Your task to perform on an android device: What's the news in Chile? Image 0: 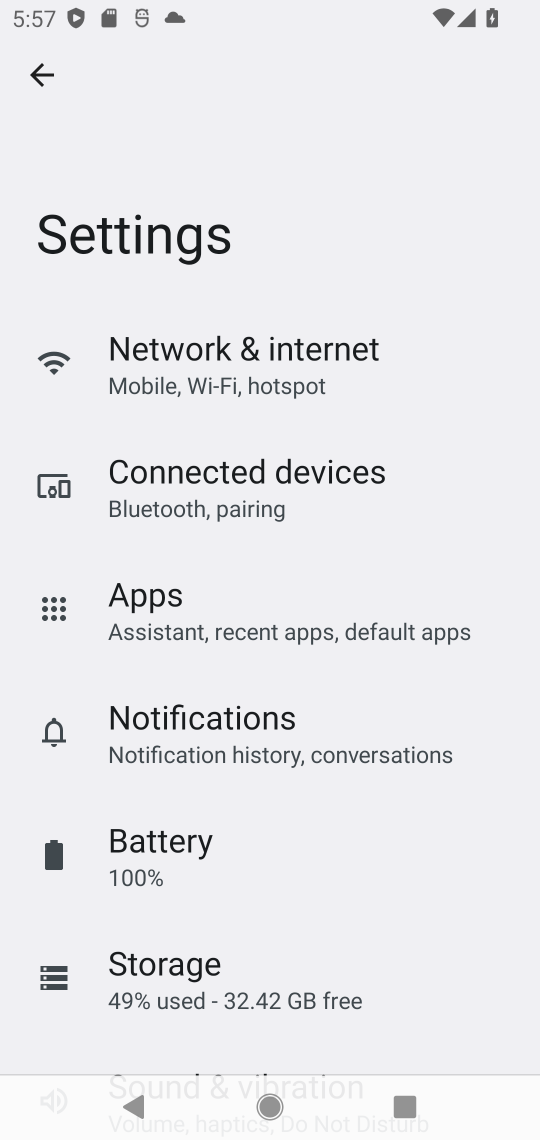
Step 0: press home button
Your task to perform on an android device: What's the news in Chile? Image 1: 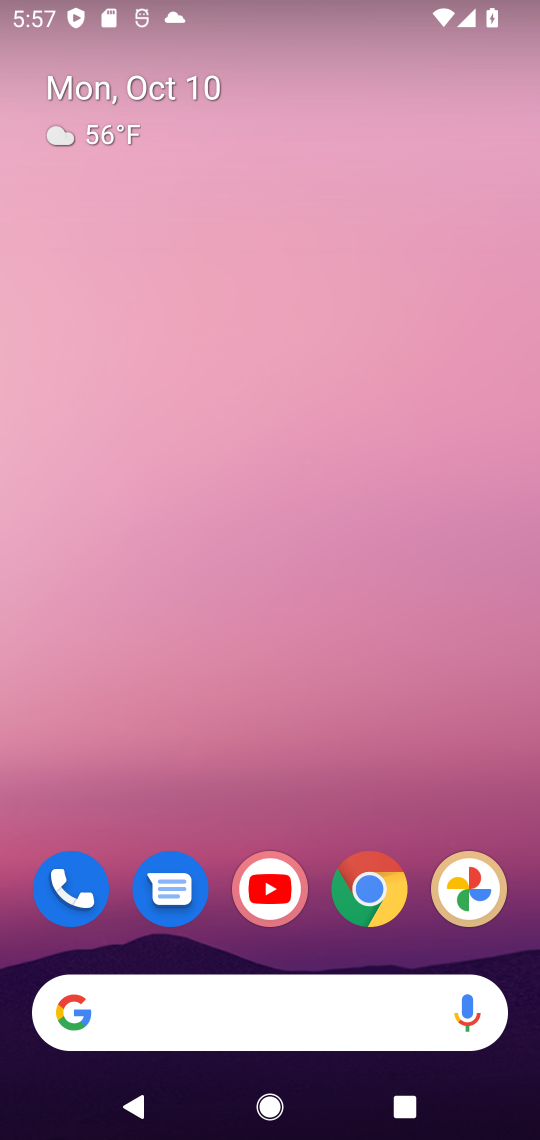
Step 1: click (389, 885)
Your task to perform on an android device: What's the news in Chile? Image 2: 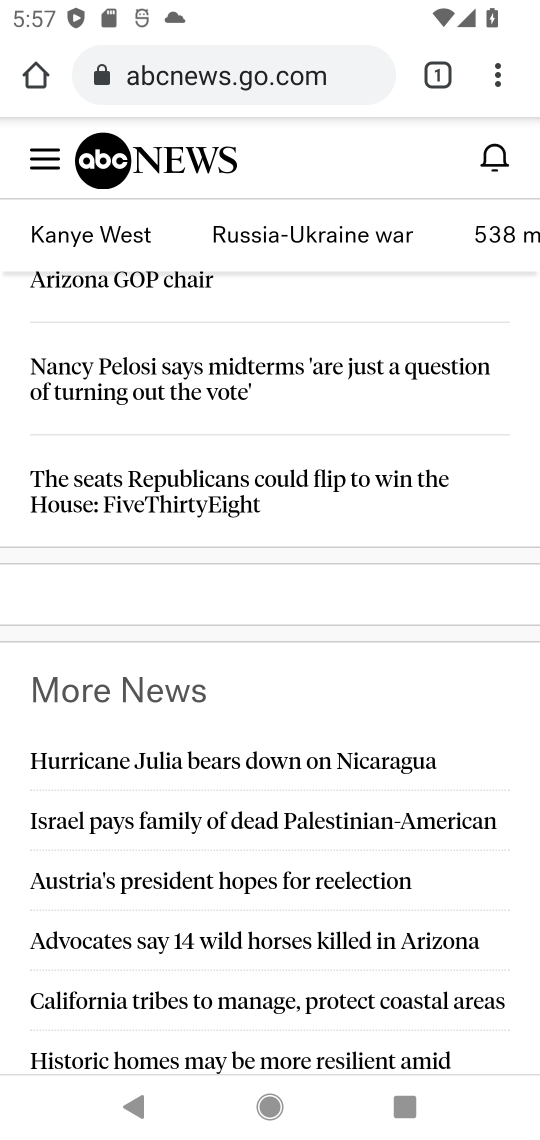
Step 2: click (210, 65)
Your task to perform on an android device: What's the news in Chile? Image 3: 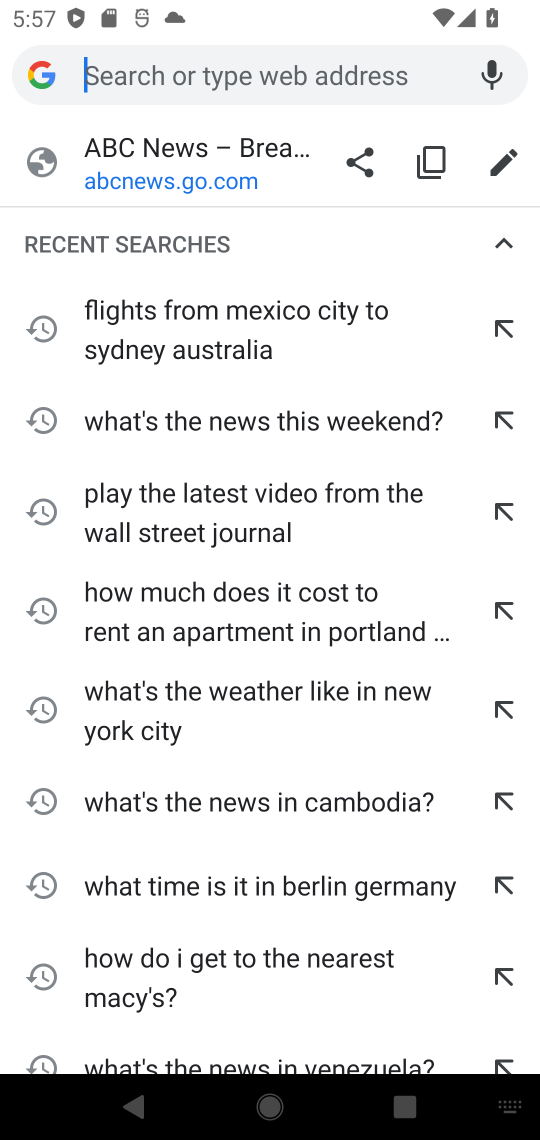
Step 3: type "What's the news in Chile?"
Your task to perform on an android device: What's the news in Chile? Image 4: 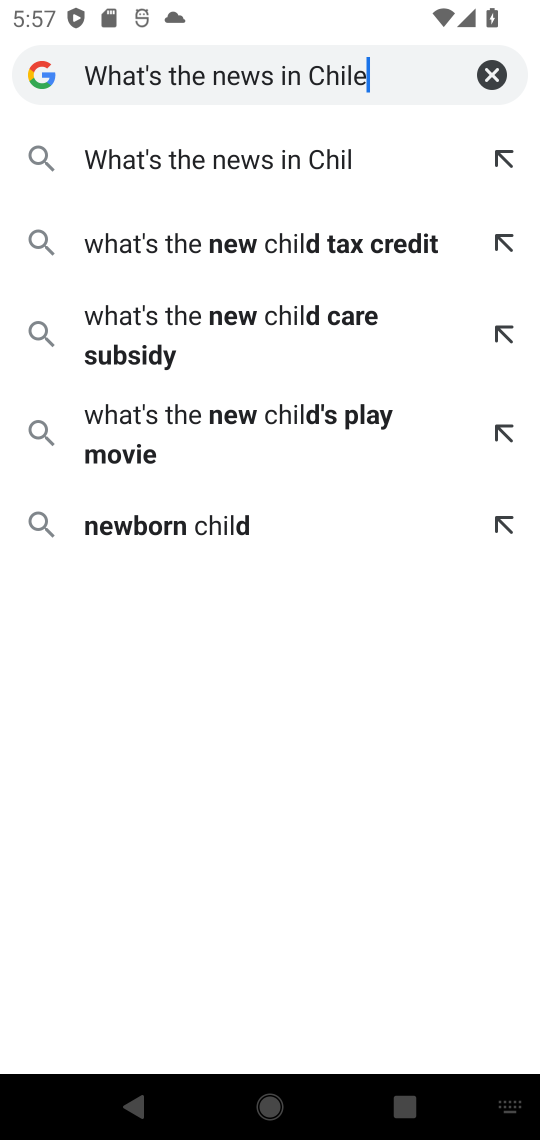
Step 4: type ""
Your task to perform on an android device: What's the news in Chile? Image 5: 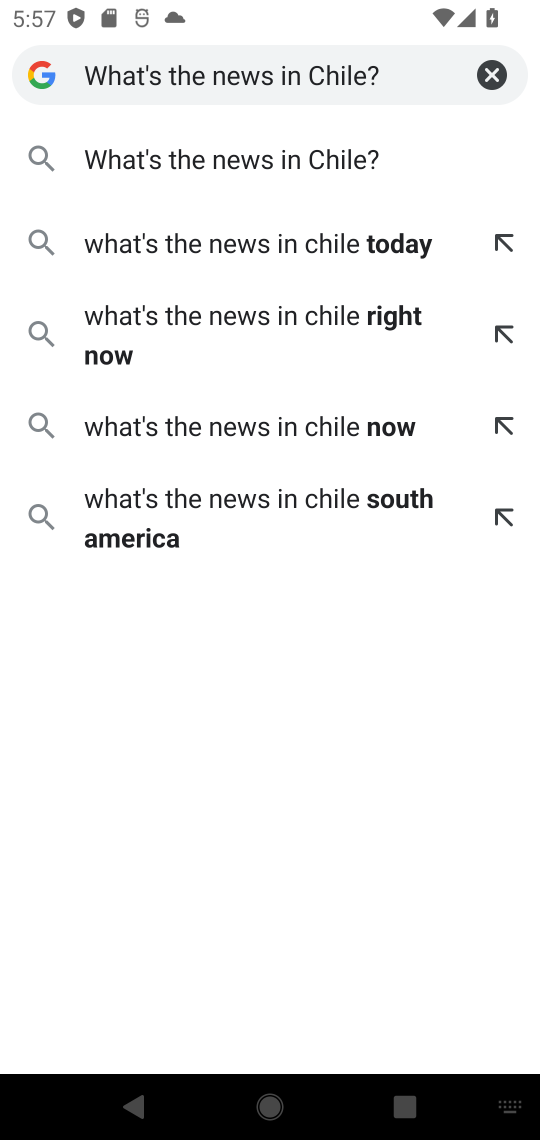
Step 5: press enter
Your task to perform on an android device: What's the news in Chile? Image 6: 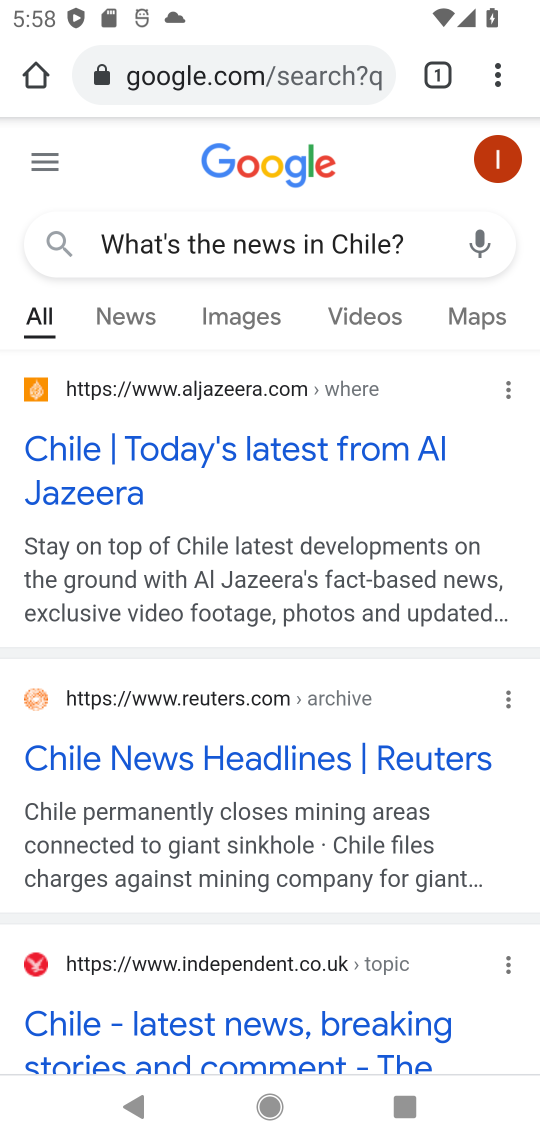
Step 6: click (260, 474)
Your task to perform on an android device: What's the news in Chile? Image 7: 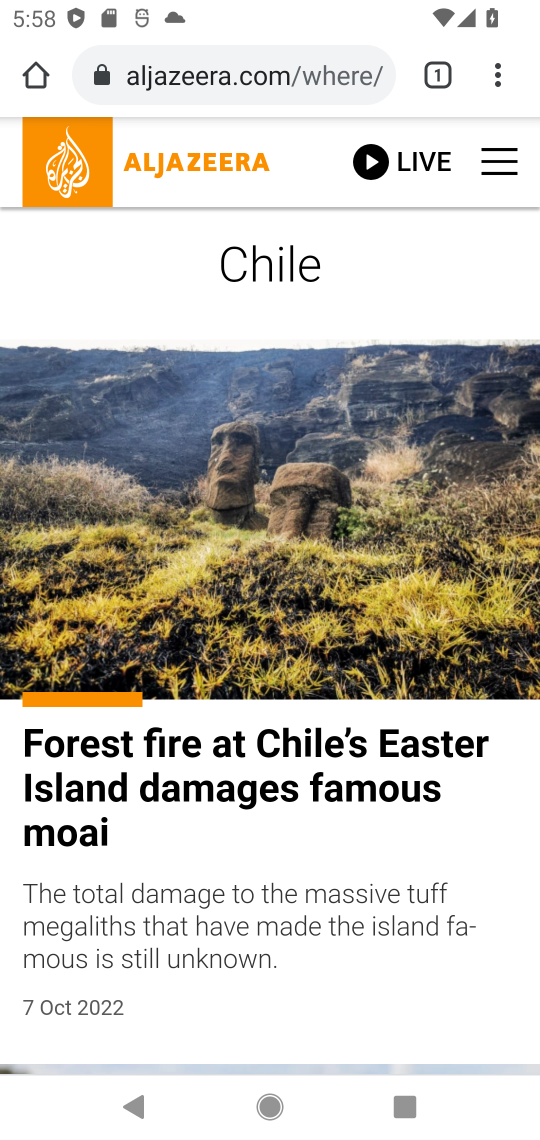
Step 7: drag from (146, 840) to (284, 422)
Your task to perform on an android device: What's the news in Chile? Image 8: 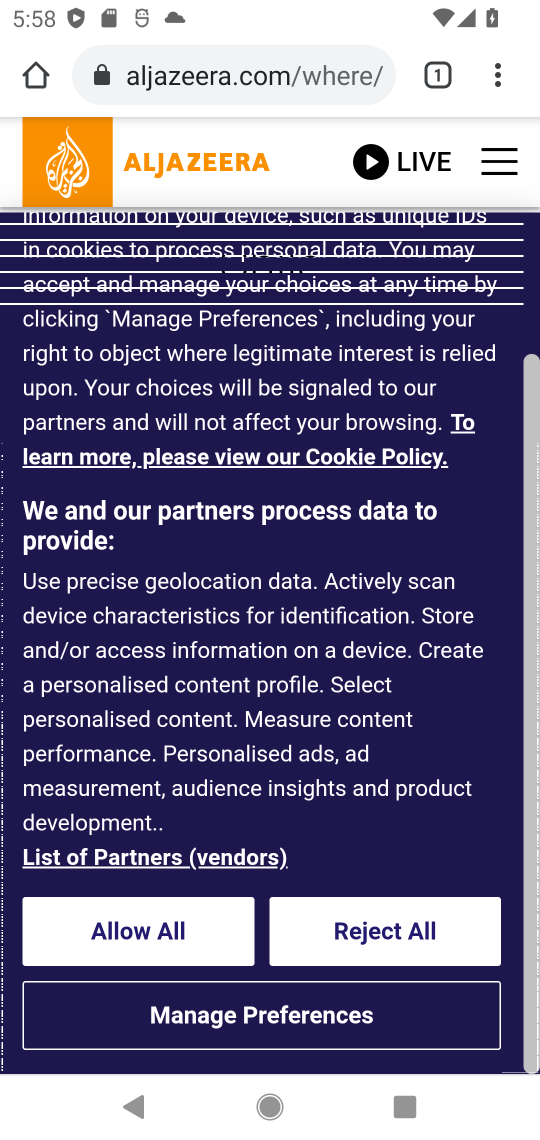
Step 8: drag from (356, 721) to (442, 274)
Your task to perform on an android device: What's the news in Chile? Image 9: 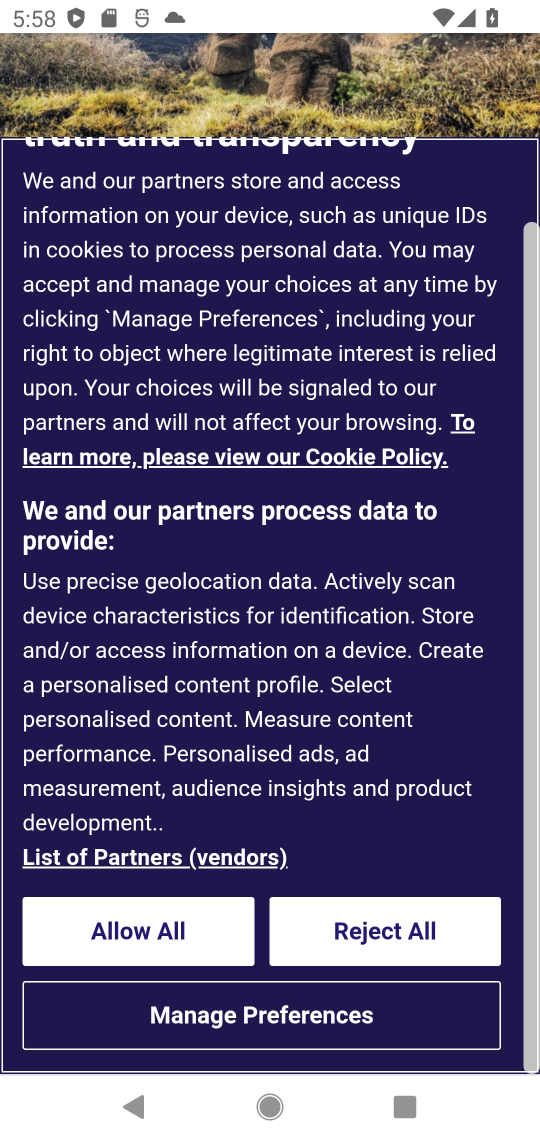
Step 9: click (345, 932)
Your task to perform on an android device: What's the news in Chile? Image 10: 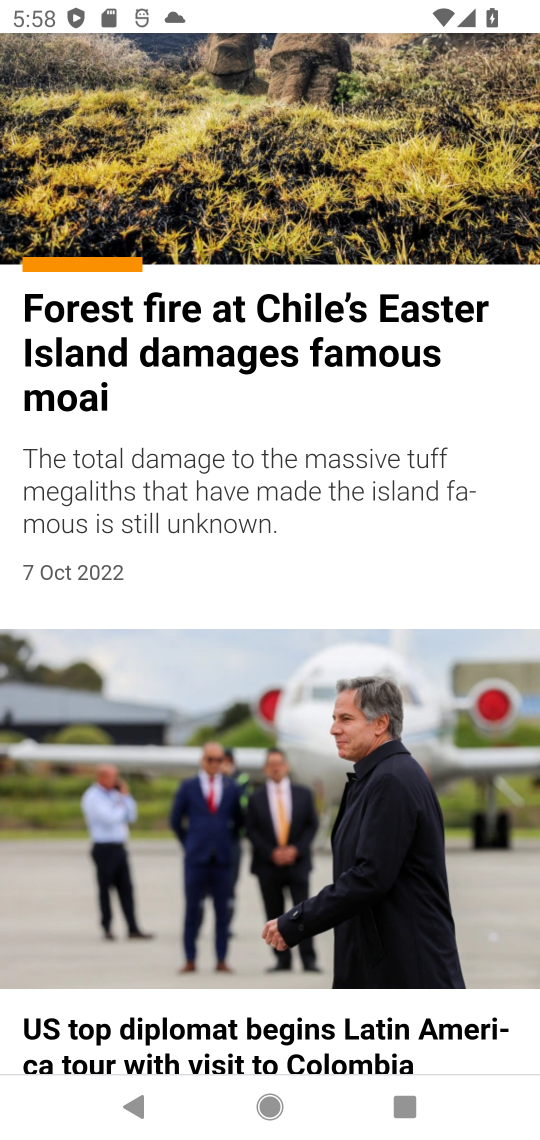
Step 10: drag from (345, 932) to (480, 62)
Your task to perform on an android device: What's the news in Chile? Image 11: 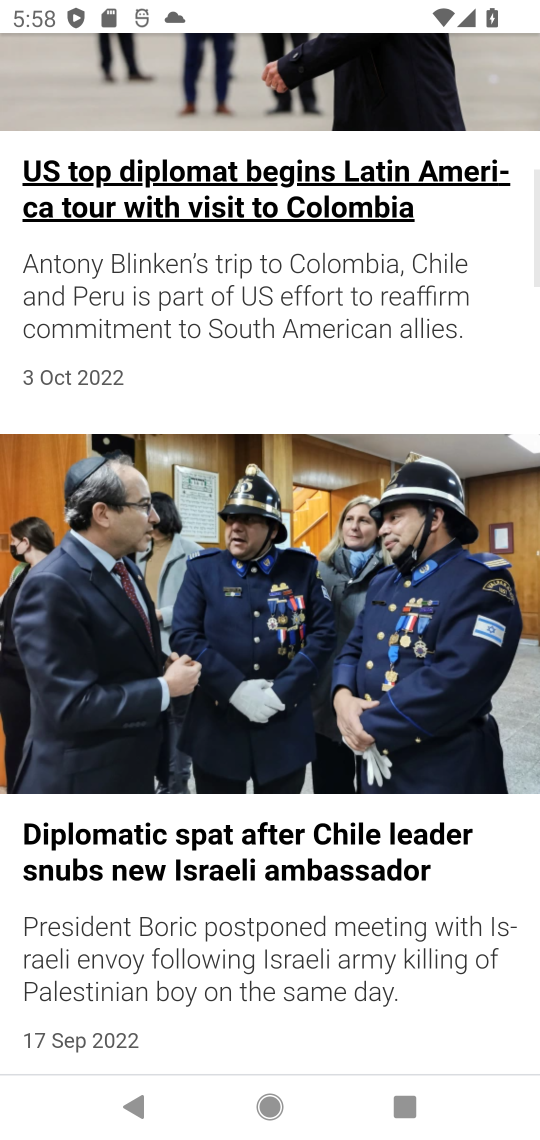
Step 11: drag from (394, 993) to (418, 26)
Your task to perform on an android device: What's the news in Chile? Image 12: 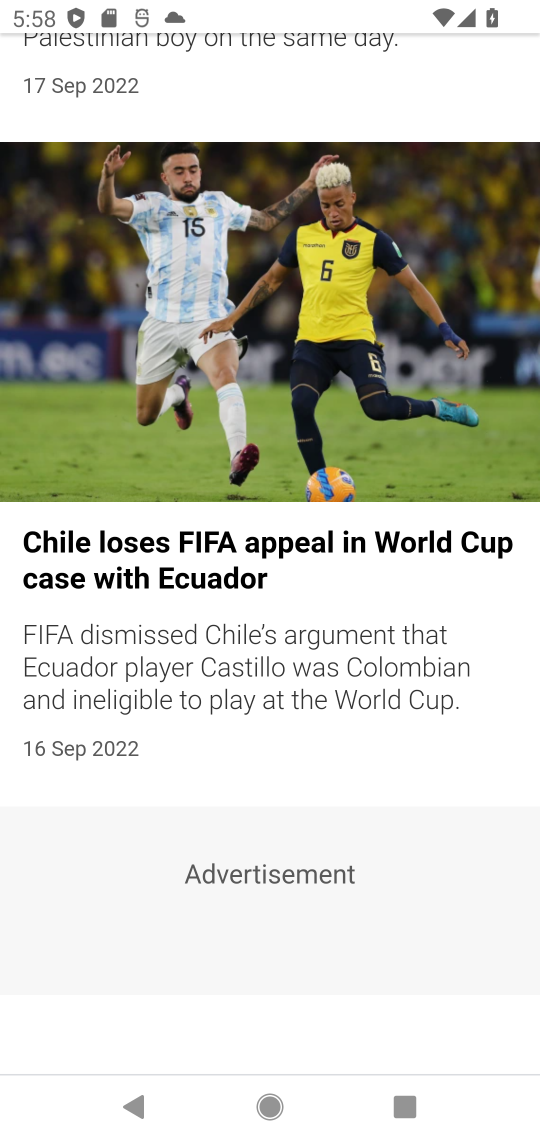
Step 12: drag from (391, 970) to (410, 126)
Your task to perform on an android device: What's the news in Chile? Image 13: 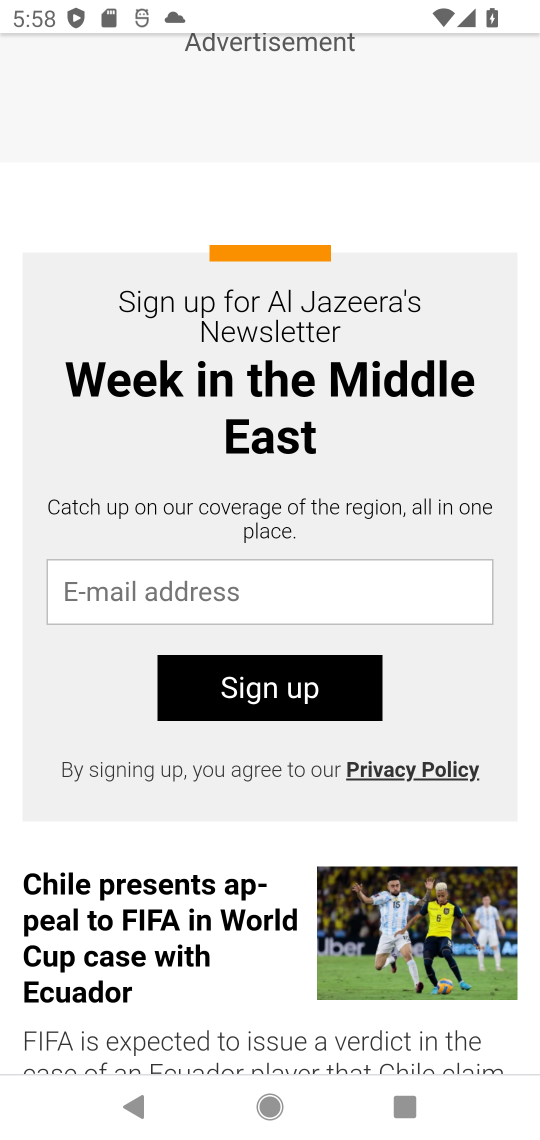
Step 13: drag from (443, 953) to (456, 104)
Your task to perform on an android device: What's the news in Chile? Image 14: 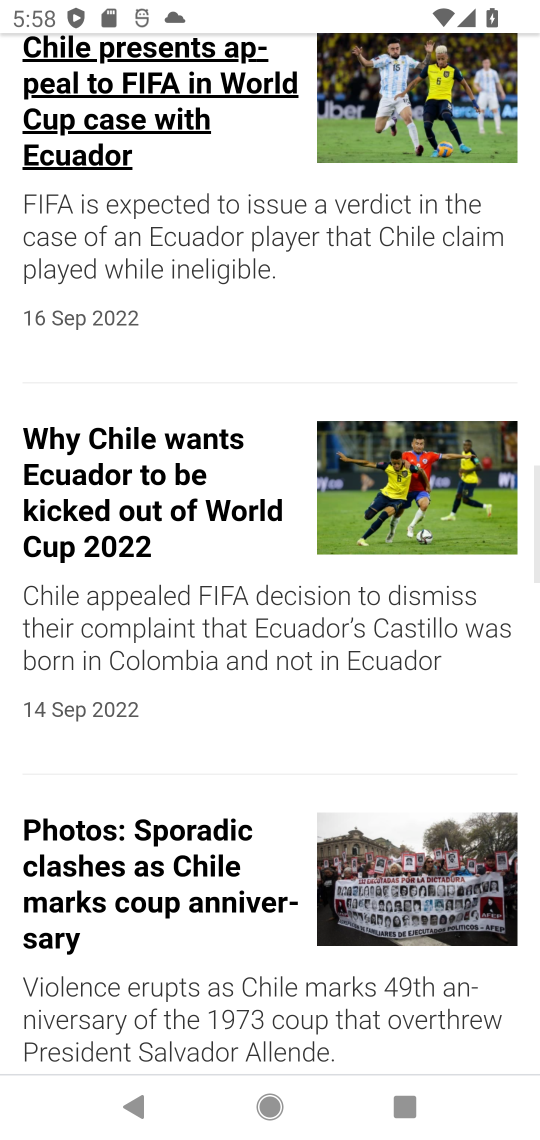
Step 14: drag from (355, 963) to (387, 187)
Your task to perform on an android device: What's the news in Chile? Image 15: 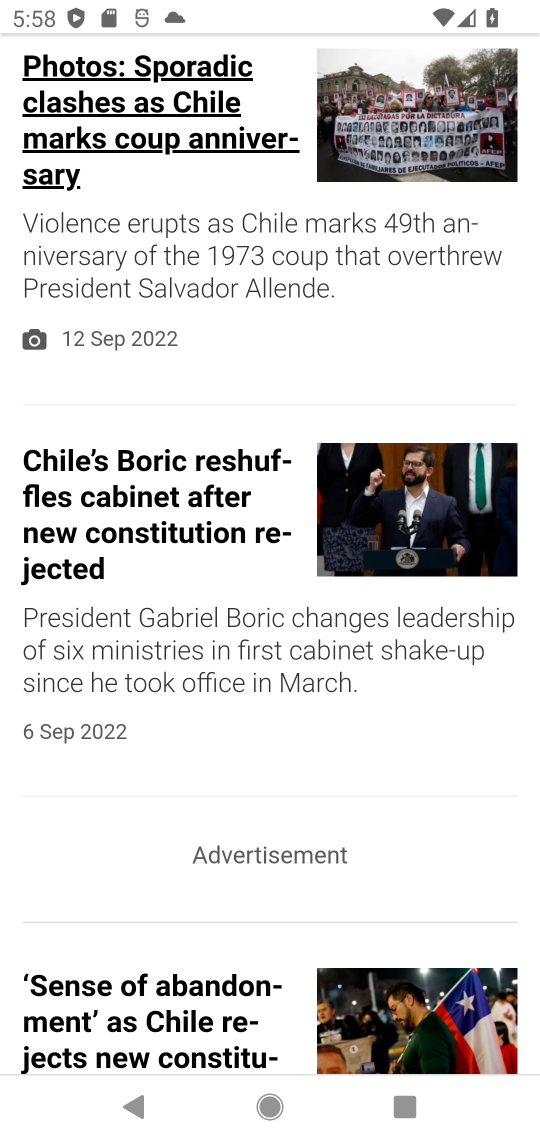
Step 15: drag from (392, 957) to (424, 256)
Your task to perform on an android device: What's the news in Chile? Image 16: 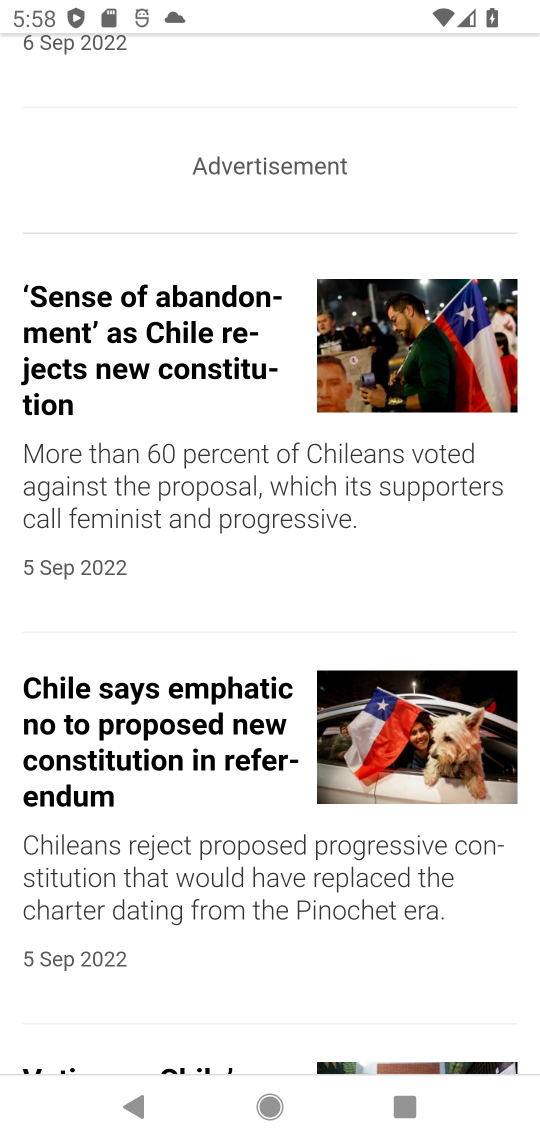
Step 16: press back button
Your task to perform on an android device: What's the news in Chile? Image 17: 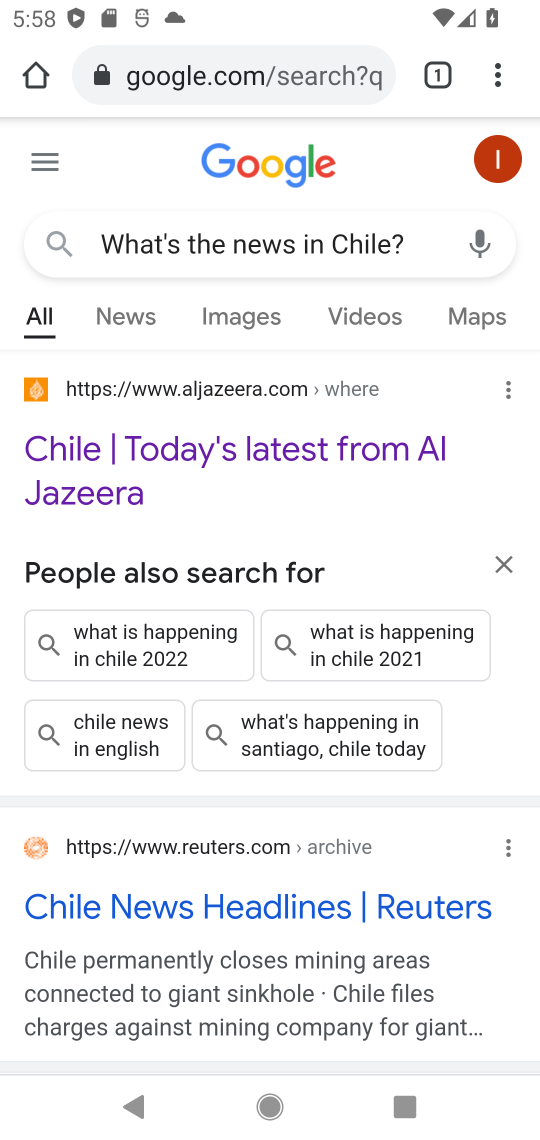
Step 17: click (394, 905)
Your task to perform on an android device: What's the news in Chile? Image 18: 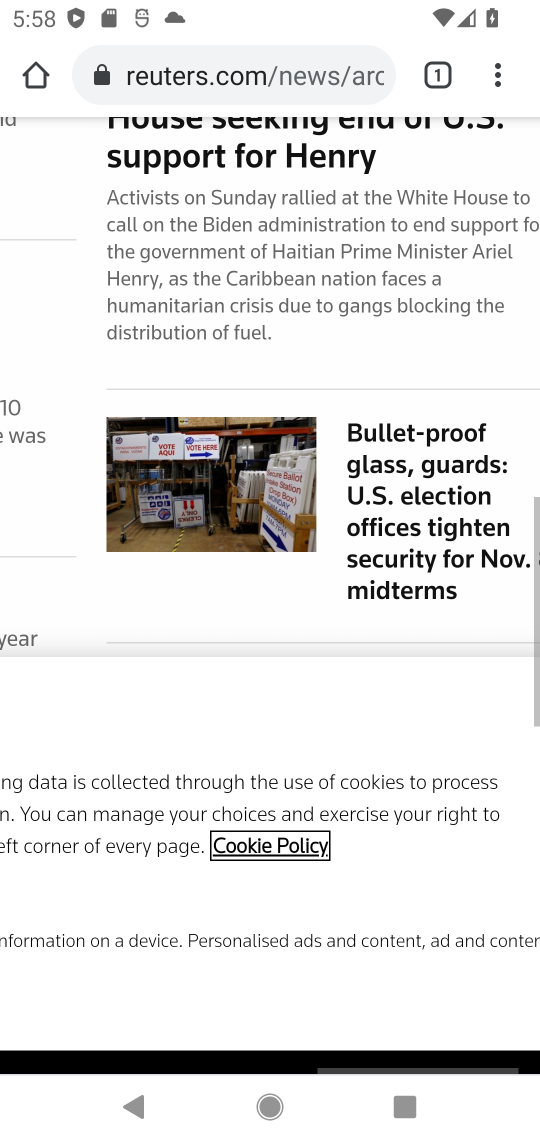
Step 18: drag from (403, 977) to (508, 316)
Your task to perform on an android device: What's the news in Chile? Image 19: 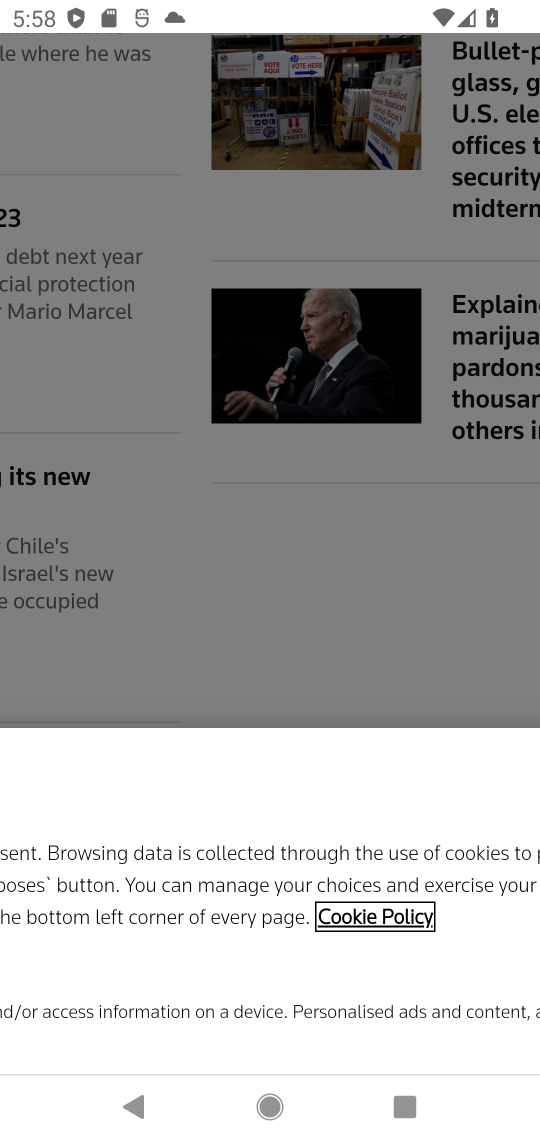
Step 19: press back button
Your task to perform on an android device: What's the news in Chile? Image 20: 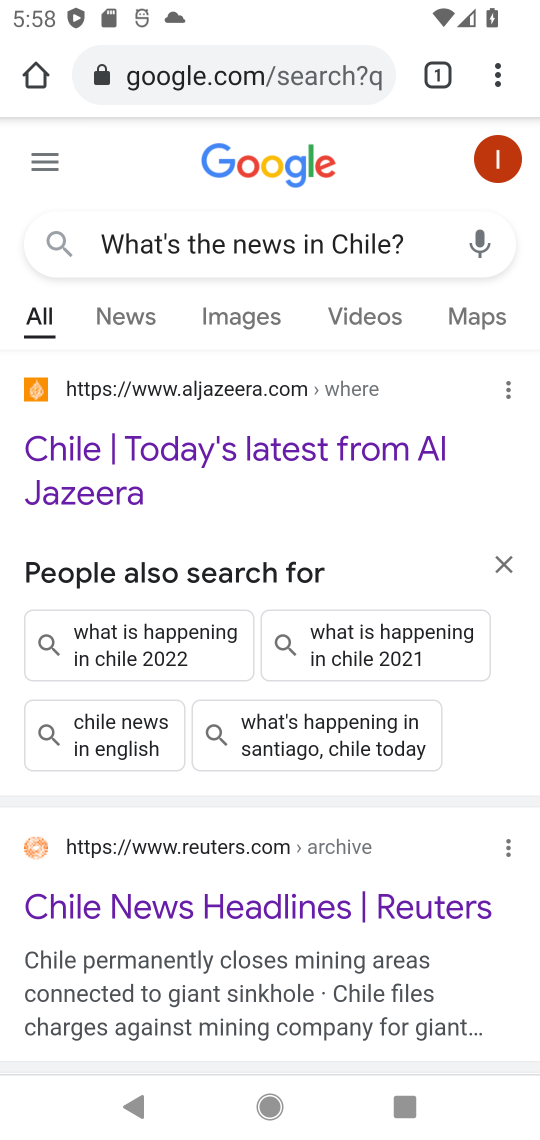
Step 20: drag from (277, 960) to (374, 341)
Your task to perform on an android device: What's the news in Chile? Image 21: 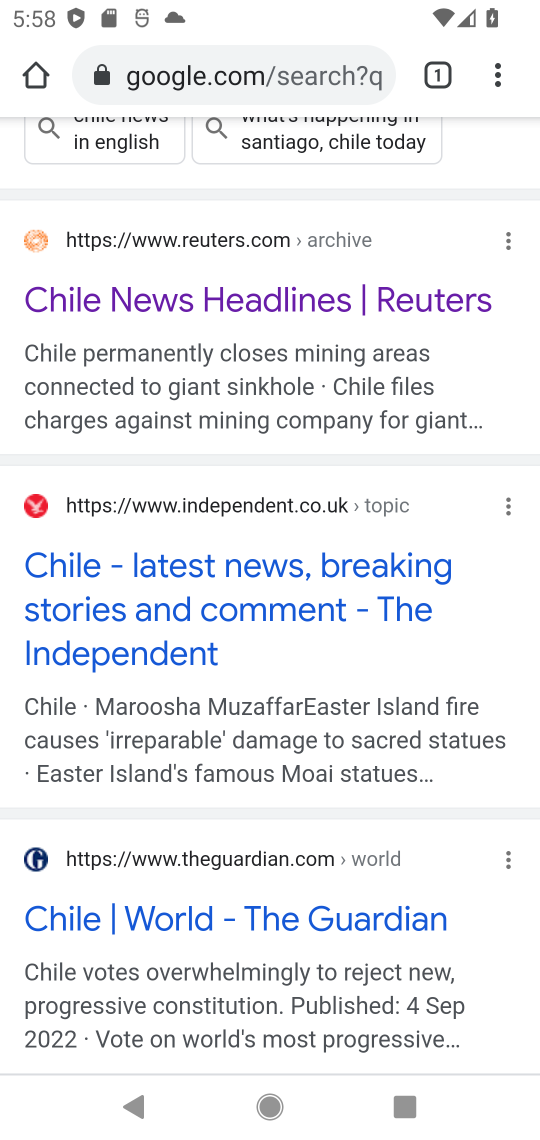
Step 21: click (280, 574)
Your task to perform on an android device: What's the news in Chile? Image 22: 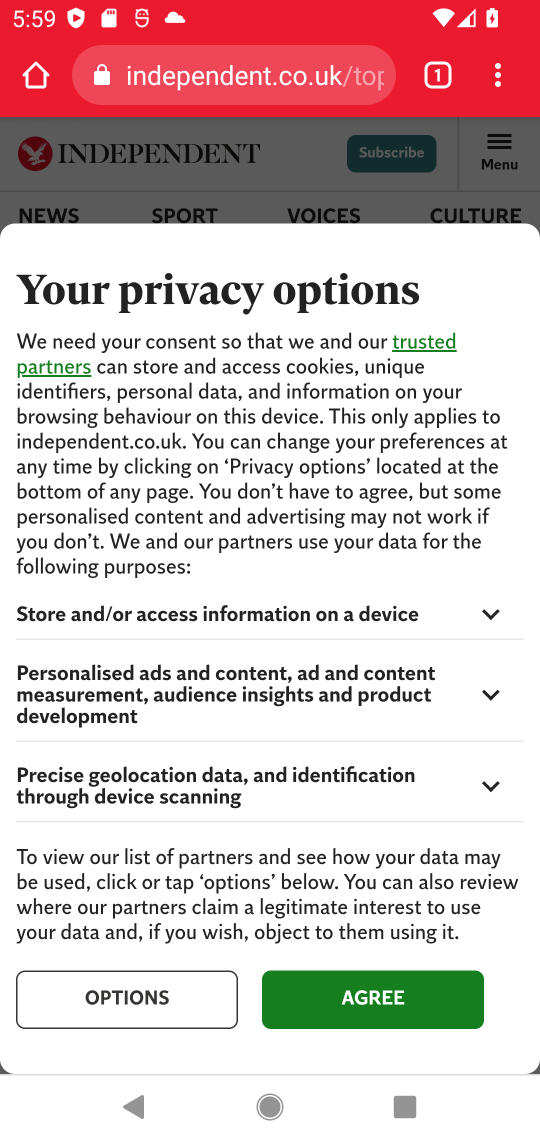
Step 22: click (372, 447)
Your task to perform on an android device: What's the news in Chile? Image 23: 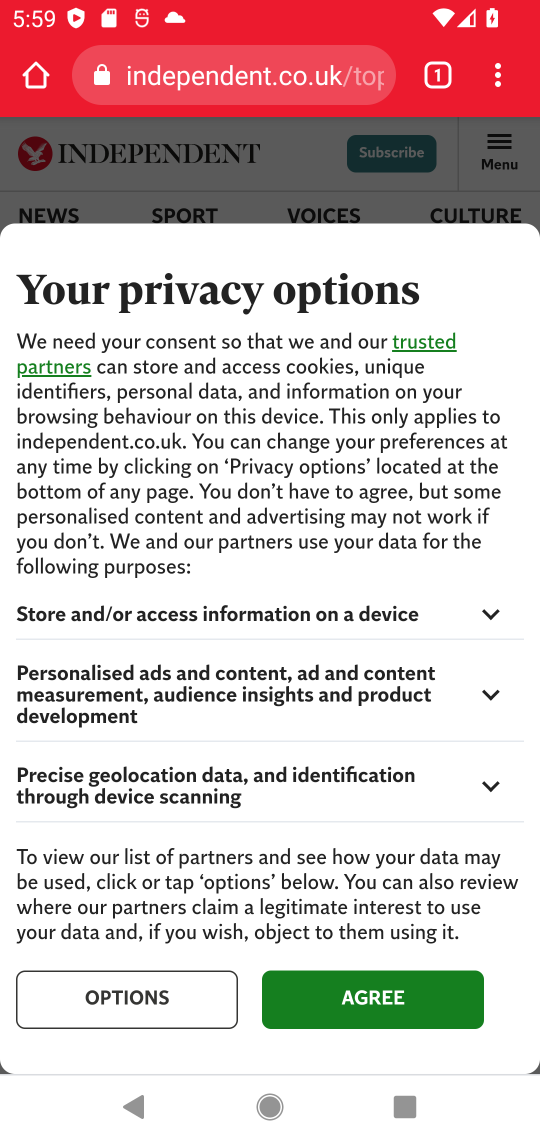
Step 23: click (297, 990)
Your task to perform on an android device: What's the news in Chile? Image 24: 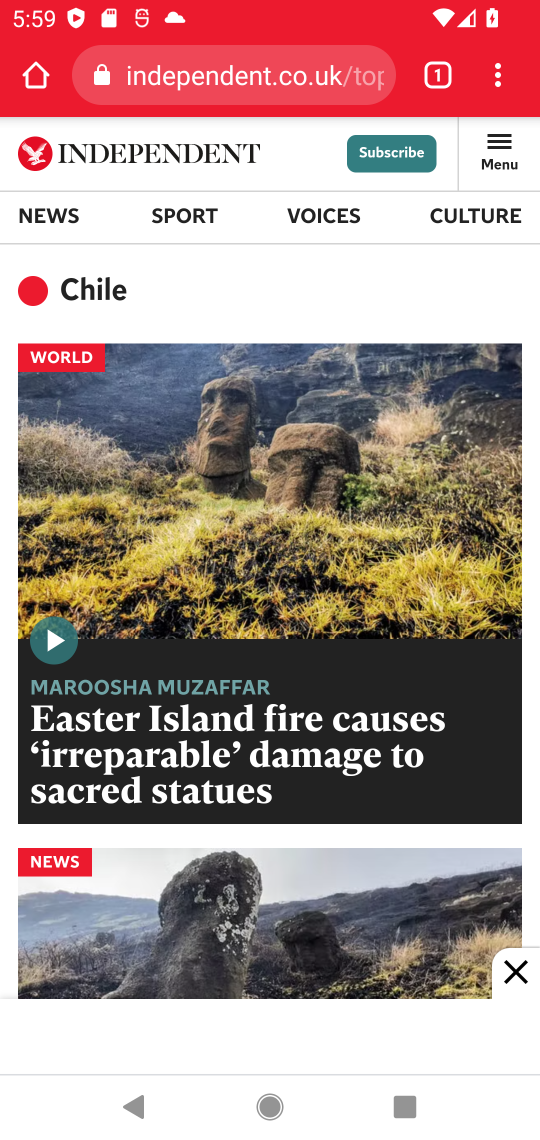
Step 24: drag from (297, 990) to (390, 431)
Your task to perform on an android device: What's the news in Chile? Image 25: 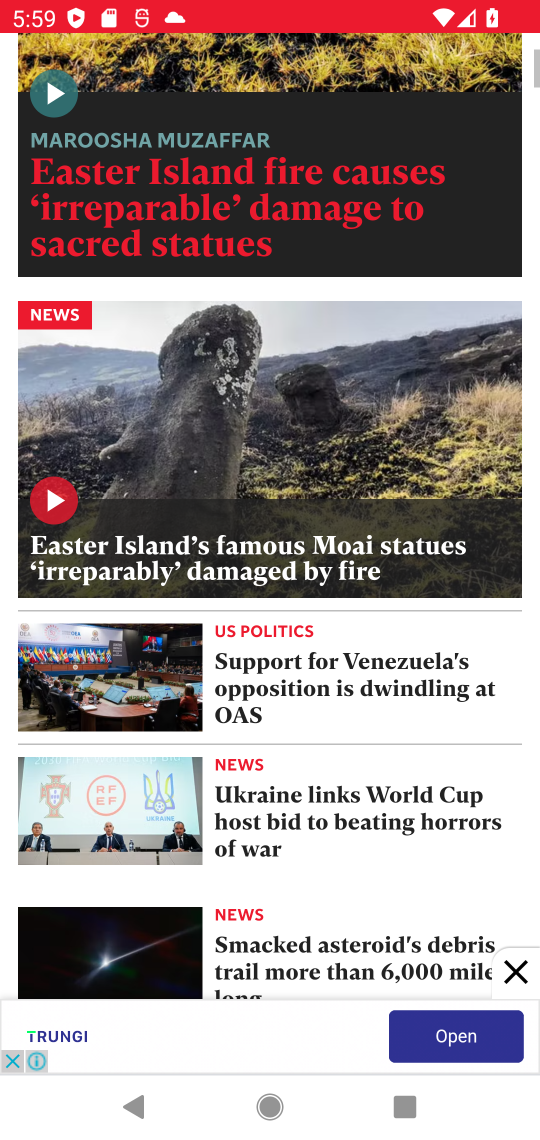
Step 25: drag from (378, 693) to (420, 427)
Your task to perform on an android device: What's the news in Chile? Image 26: 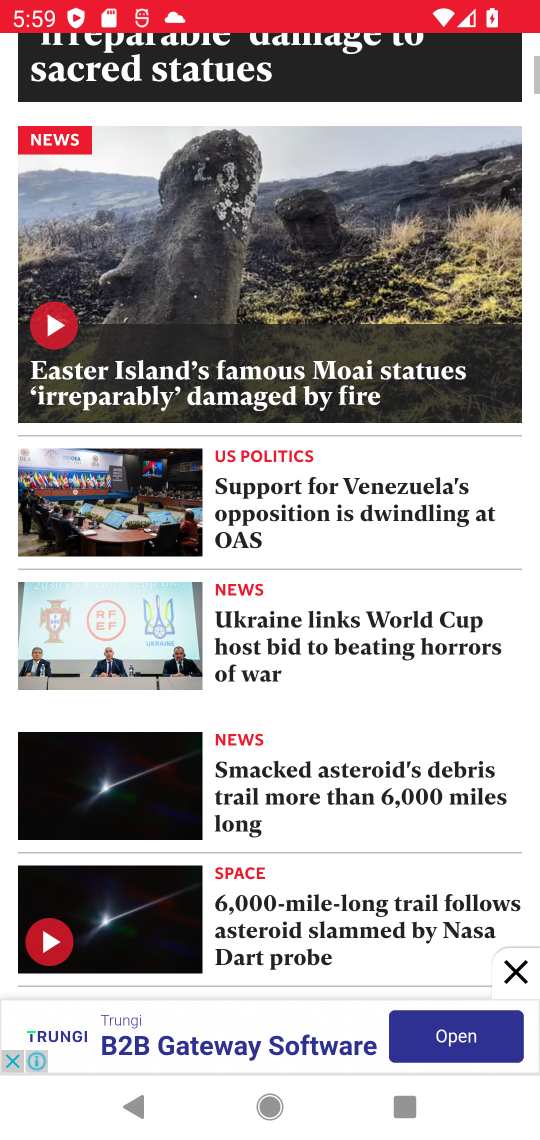
Step 26: drag from (328, 813) to (392, 496)
Your task to perform on an android device: What's the news in Chile? Image 27: 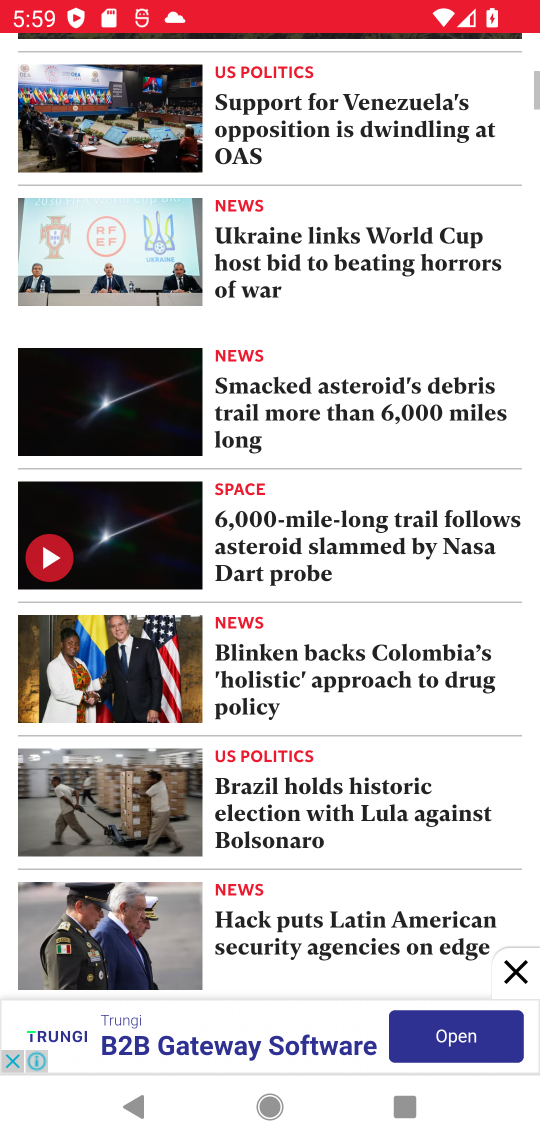
Step 27: drag from (297, 568) to (330, 445)
Your task to perform on an android device: What's the news in Chile? Image 28: 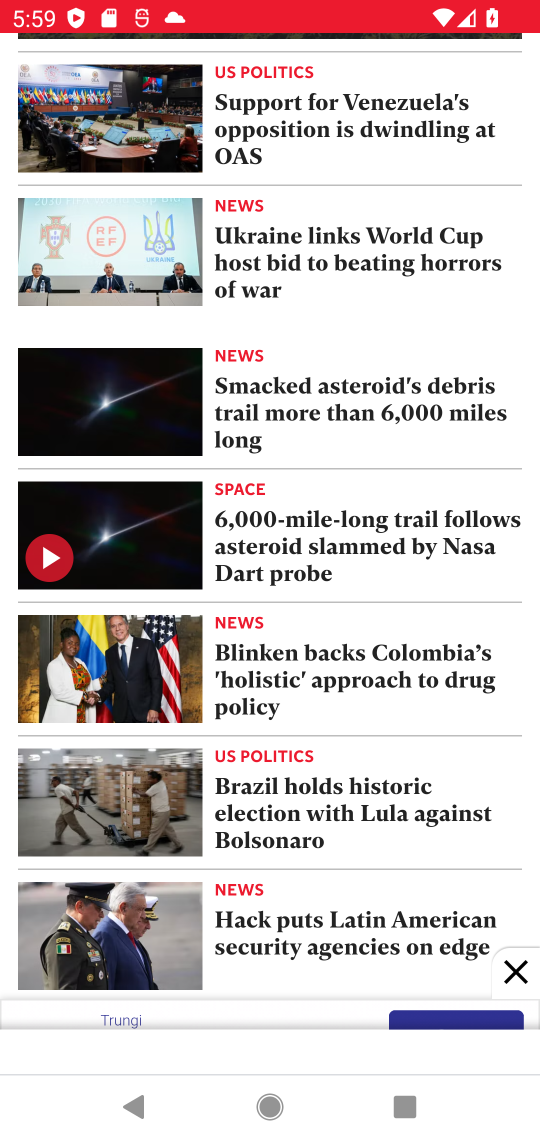
Step 28: drag from (306, 865) to (360, 332)
Your task to perform on an android device: What's the news in Chile? Image 29: 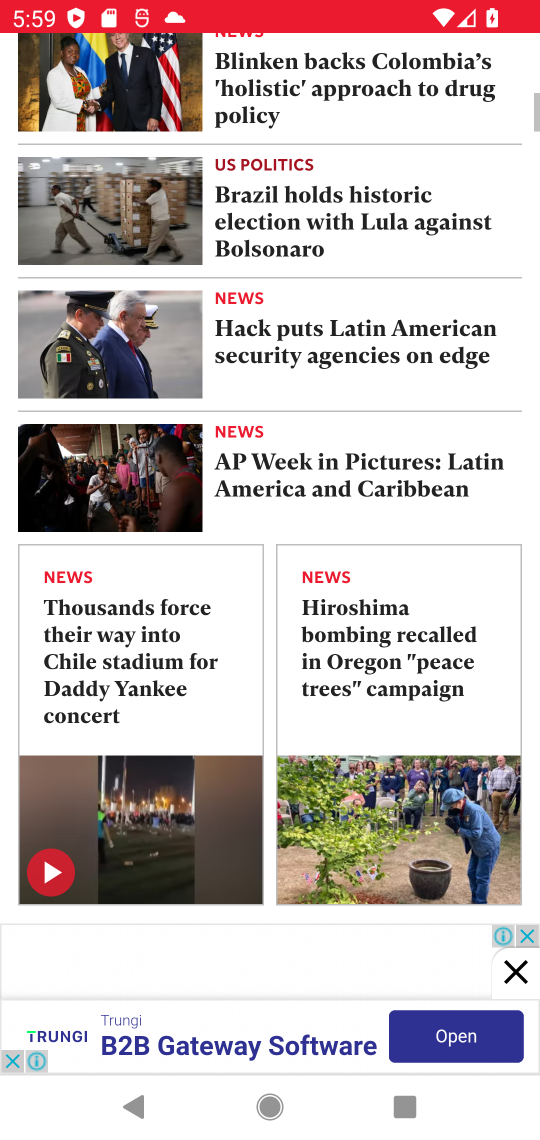
Step 29: drag from (316, 598) to (355, 322)
Your task to perform on an android device: What's the news in Chile? Image 30: 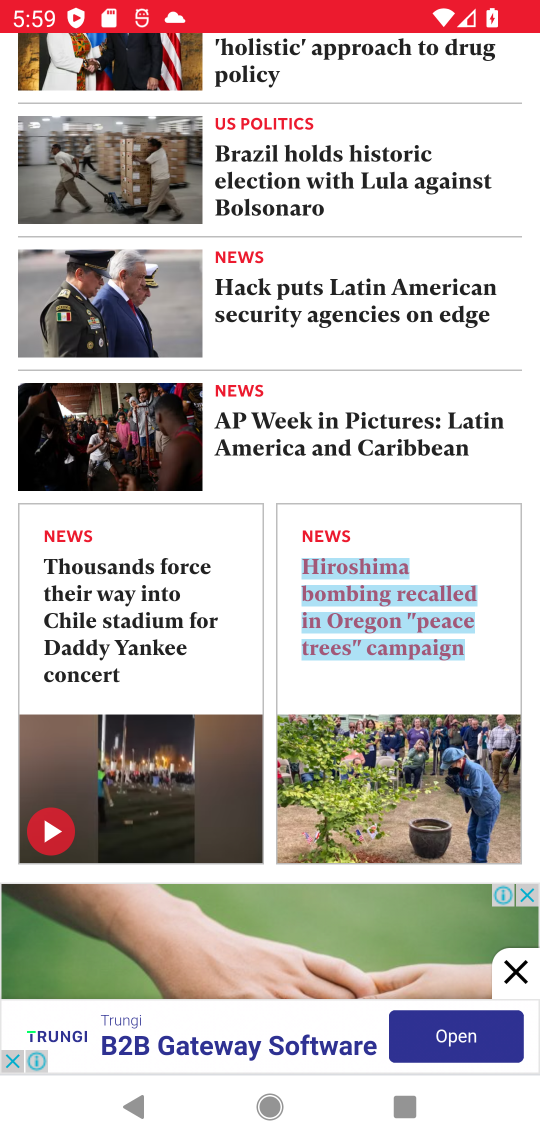
Step 30: drag from (294, 808) to (384, 315)
Your task to perform on an android device: What's the news in Chile? Image 31: 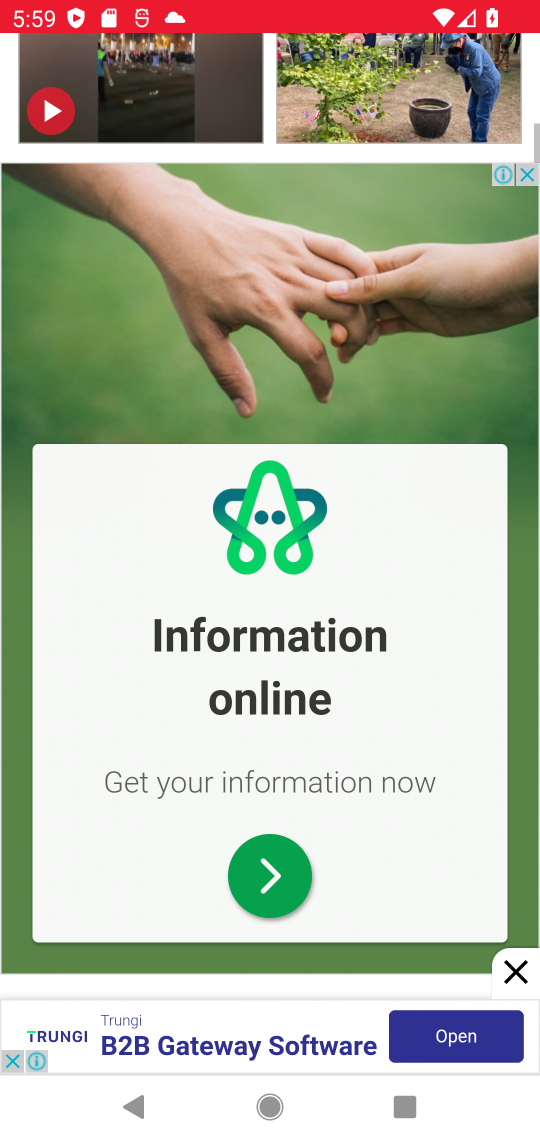
Step 31: drag from (365, 747) to (407, 286)
Your task to perform on an android device: What's the news in Chile? Image 32: 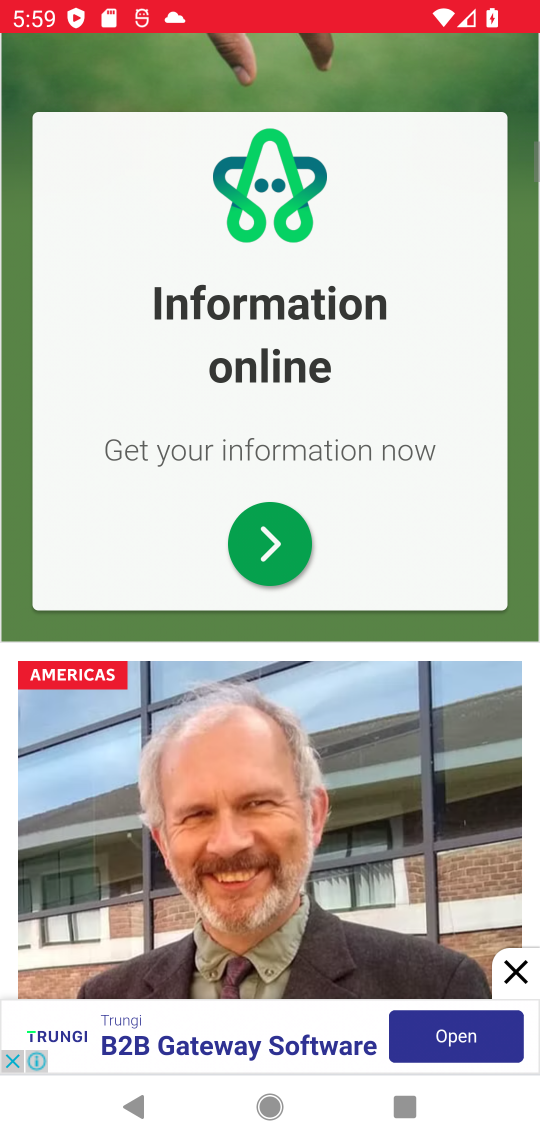
Step 32: drag from (350, 649) to (405, 253)
Your task to perform on an android device: What's the news in Chile? Image 33: 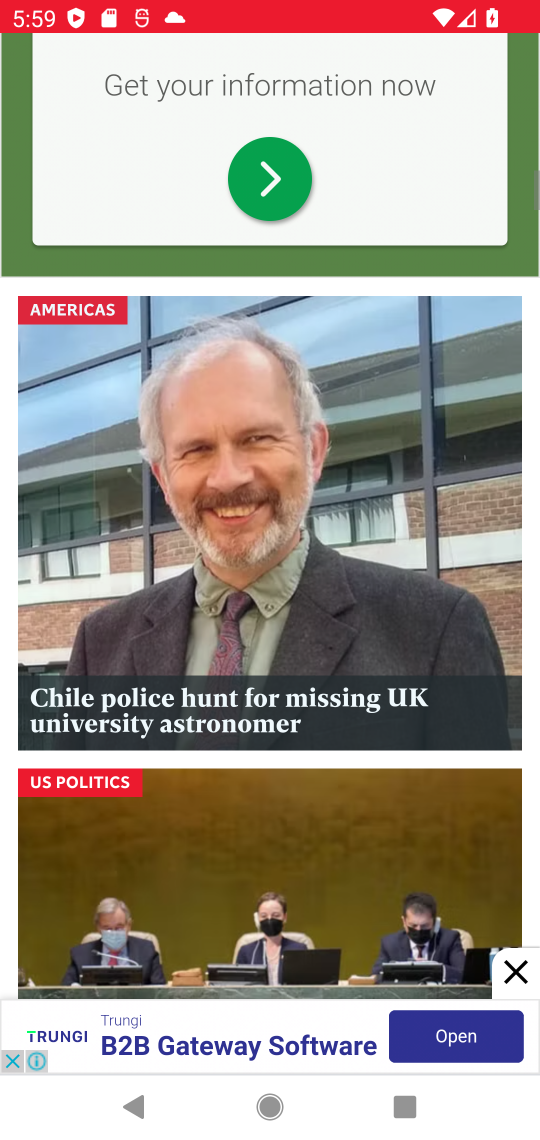
Step 33: drag from (337, 473) to (388, 261)
Your task to perform on an android device: What's the news in Chile? Image 34: 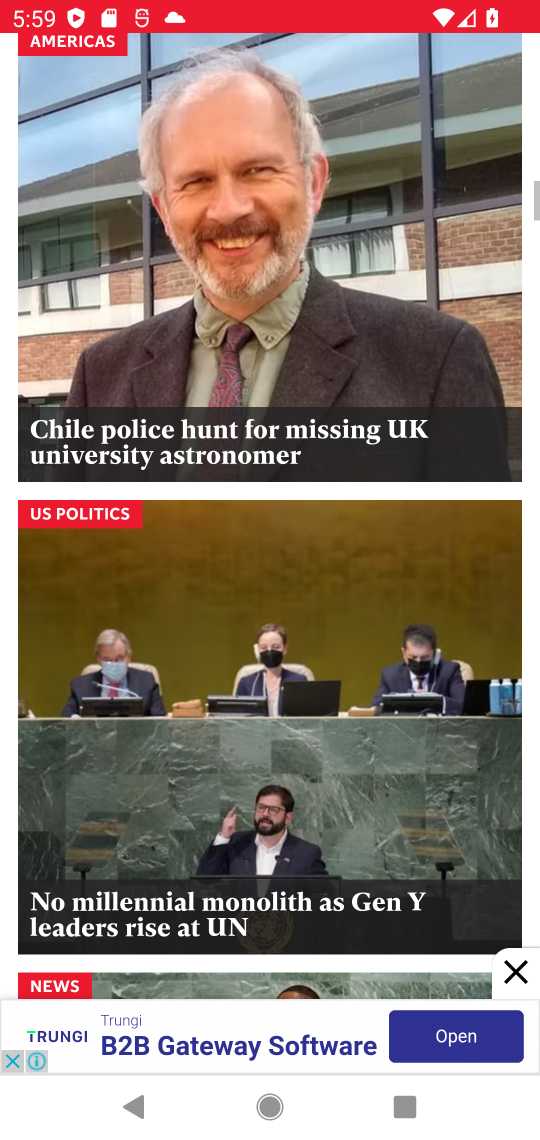
Step 34: drag from (336, 555) to (370, 274)
Your task to perform on an android device: What's the news in Chile? Image 35: 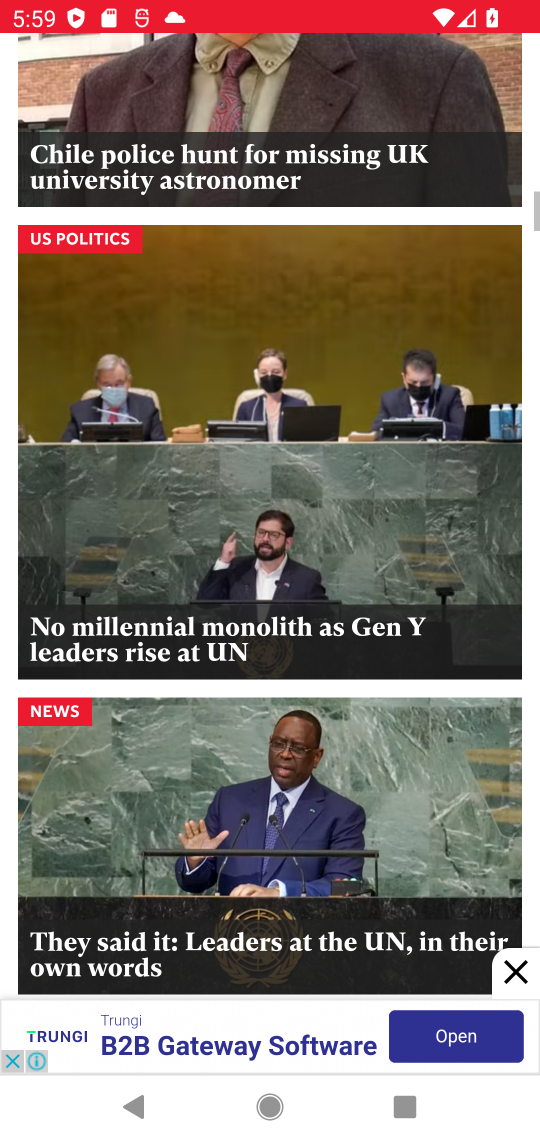
Step 35: click (391, 222)
Your task to perform on an android device: What's the news in Chile? Image 36: 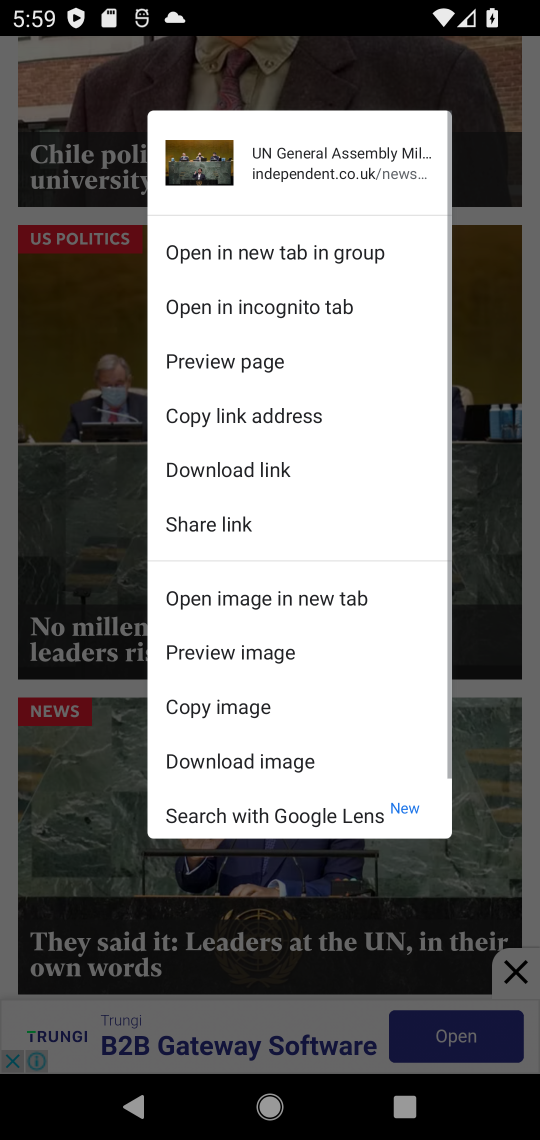
Step 36: drag from (329, 583) to (380, 177)
Your task to perform on an android device: What's the news in Chile? Image 37: 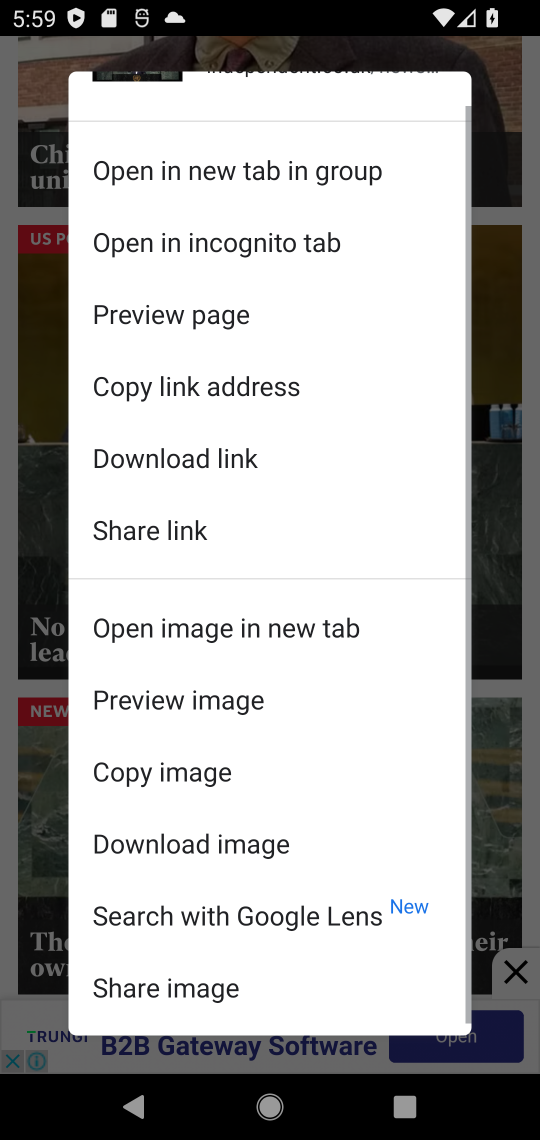
Step 37: click (514, 379)
Your task to perform on an android device: What's the news in Chile? Image 38: 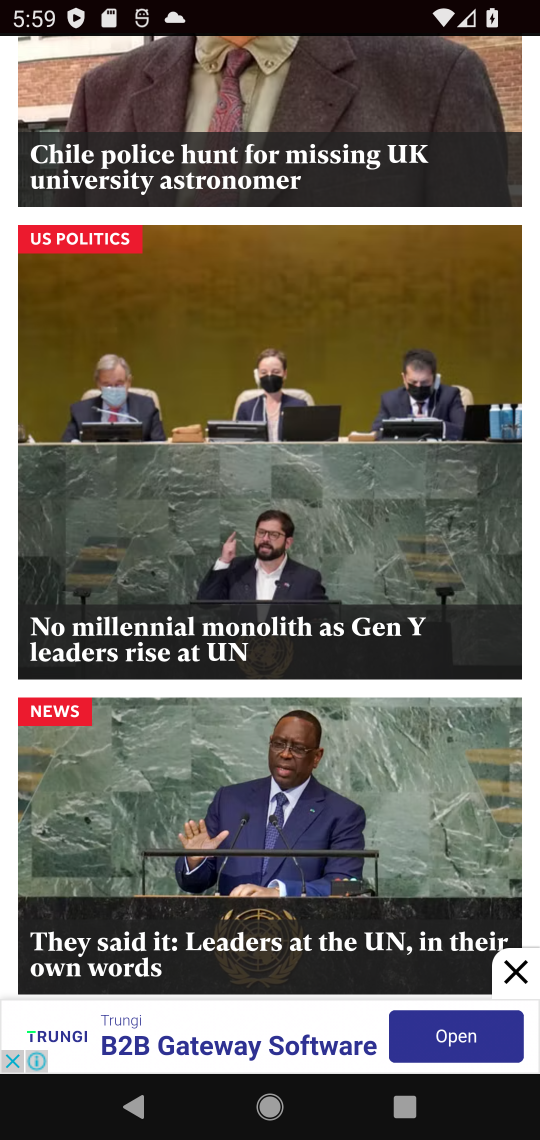
Step 38: press back button
Your task to perform on an android device: What's the news in Chile? Image 39: 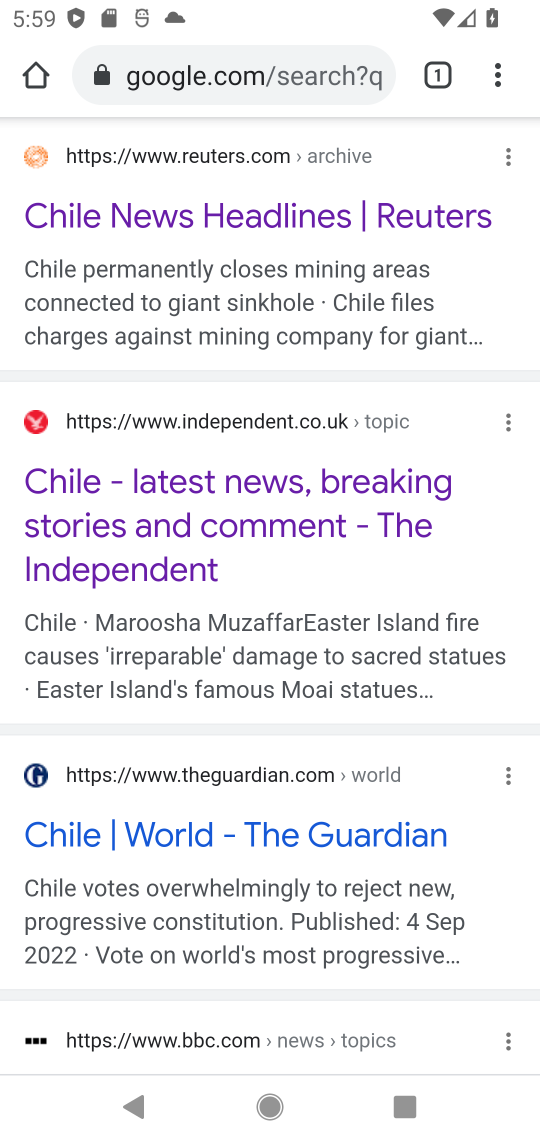
Step 39: drag from (385, 789) to (449, 246)
Your task to perform on an android device: What's the news in Chile? Image 40: 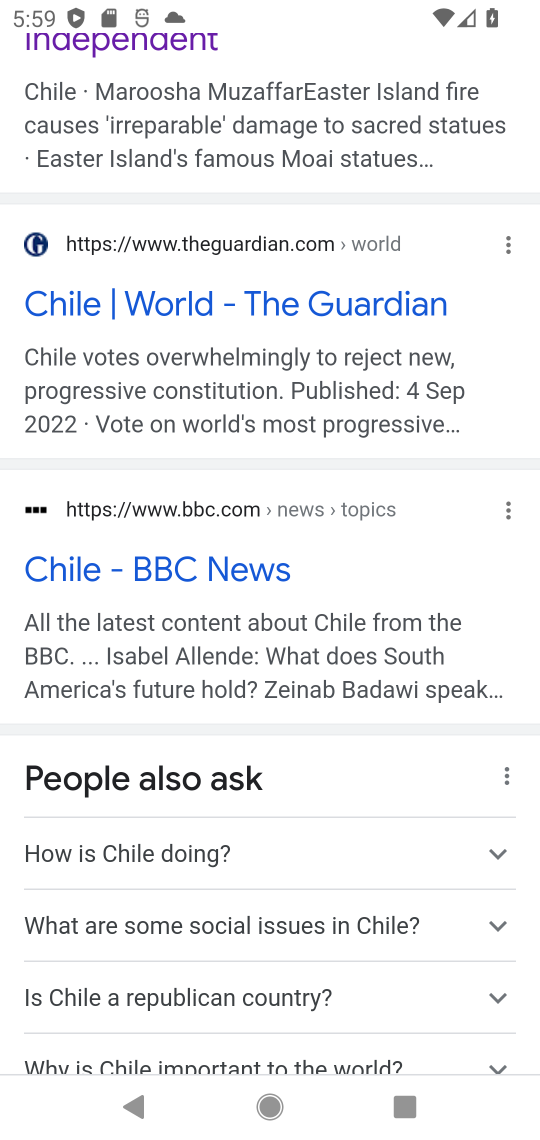
Step 40: click (192, 563)
Your task to perform on an android device: What's the news in Chile? Image 41: 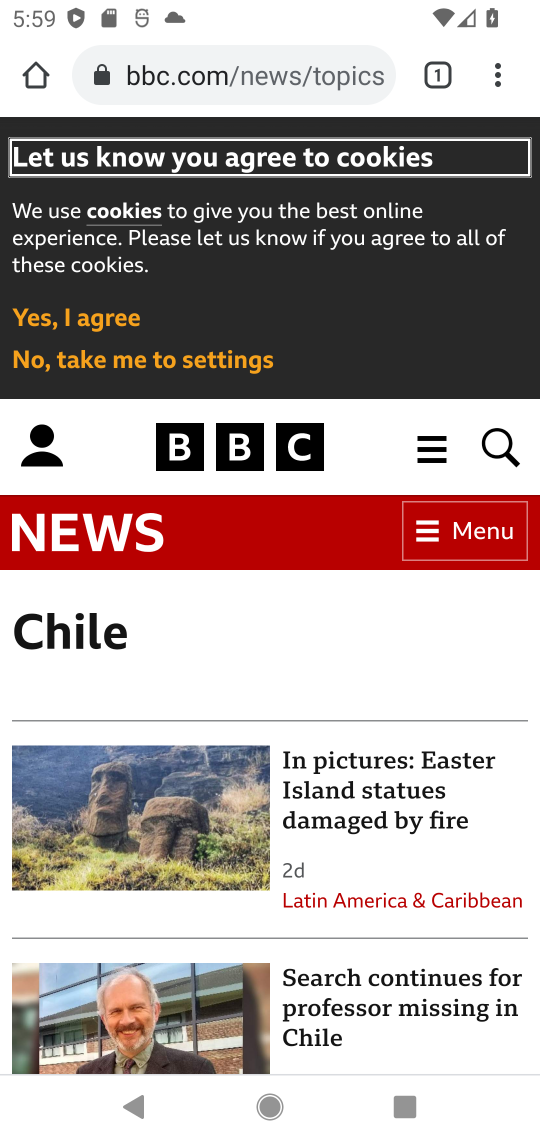
Step 41: drag from (282, 766) to (338, 464)
Your task to perform on an android device: What's the news in Chile? Image 42: 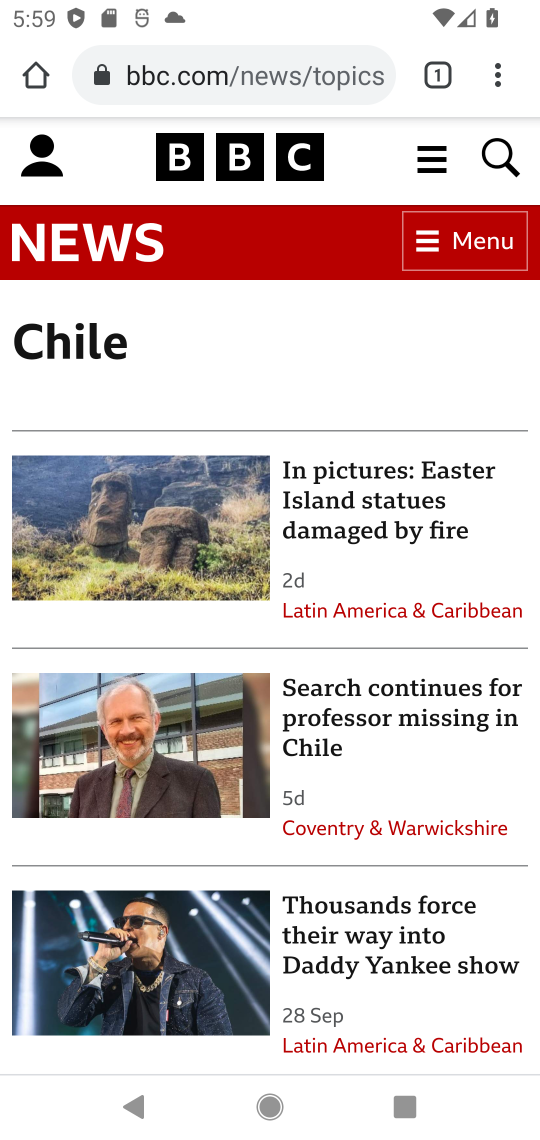
Step 42: drag from (403, 798) to (401, 435)
Your task to perform on an android device: What's the news in Chile? Image 43: 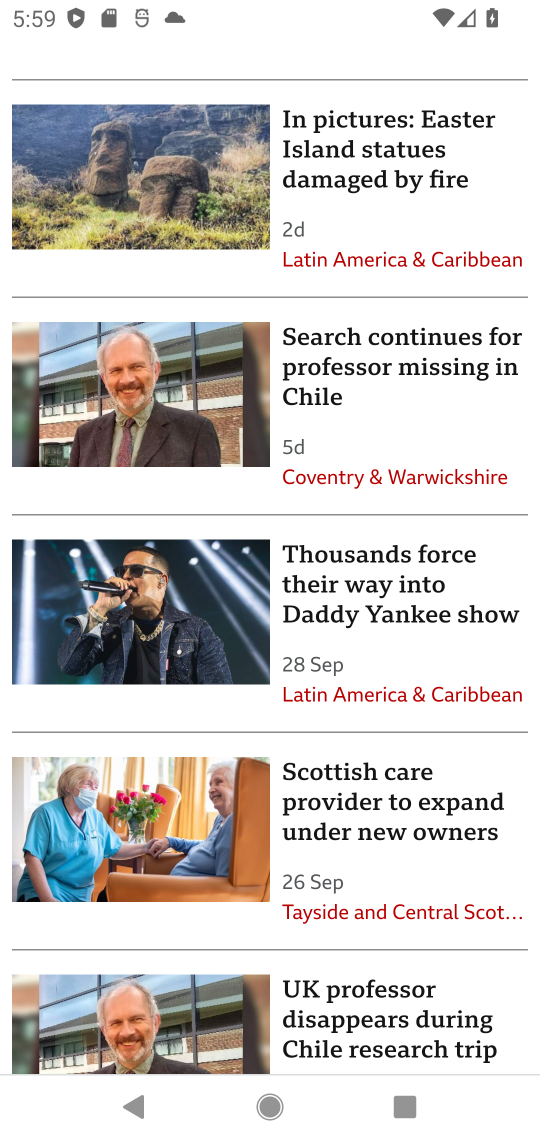
Step 43: drag from (373, 262) to (394, 590)
Your task to perform on an android device: What's the news in Chile? Image 44: 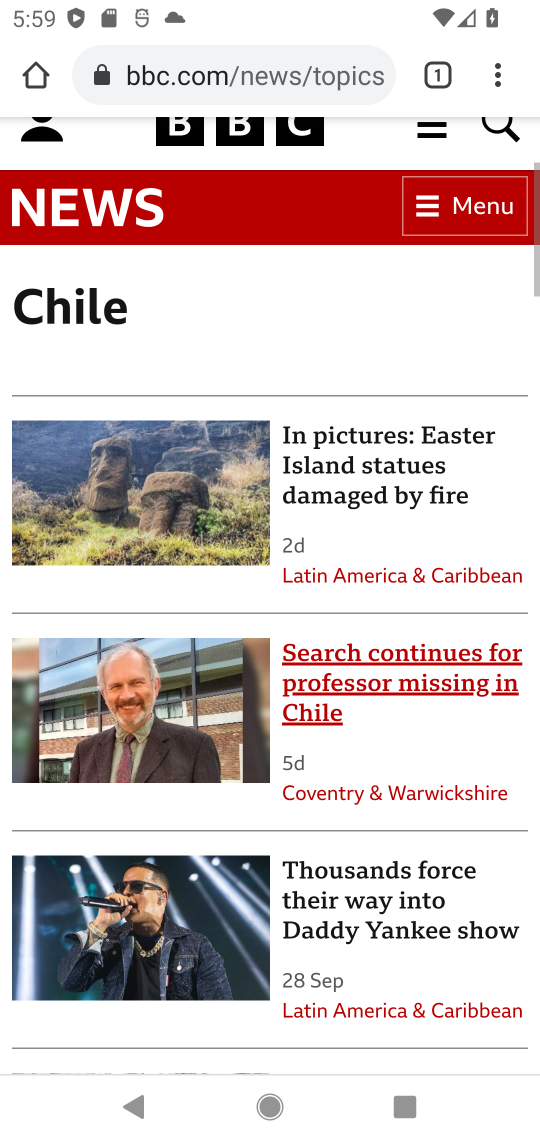
Step 44: click (356, 441)
Your task to perform on an android device: What's the news in Chile? Image 45: 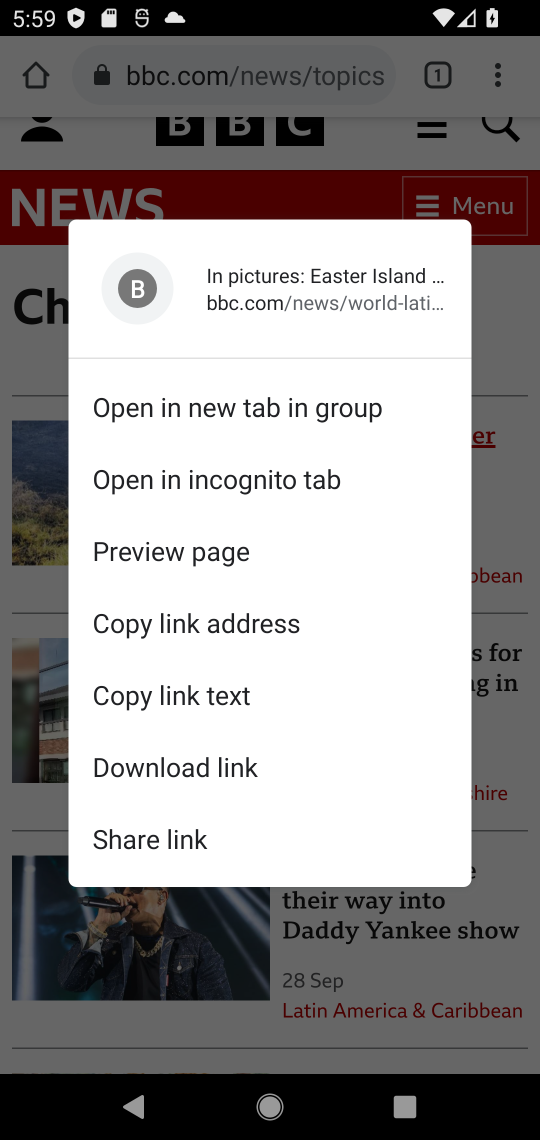
Step 45: click (497, 599)
Your task to perform on an android device: What's the news in Chile? Image 46: 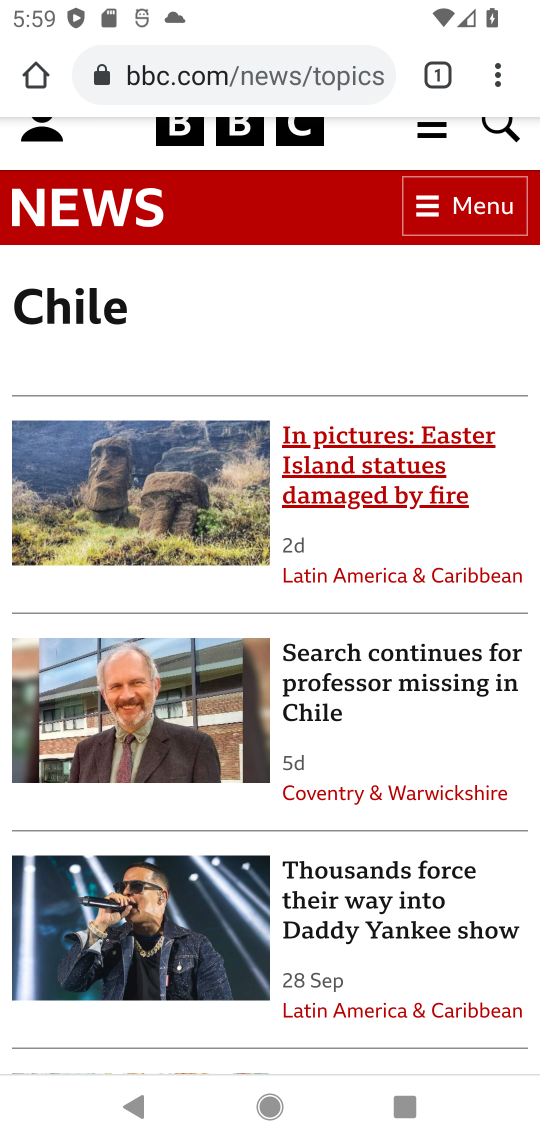
Step 46: click (457, 651)
Your task to perform on an android device: What's the news in Chile? Image 47: 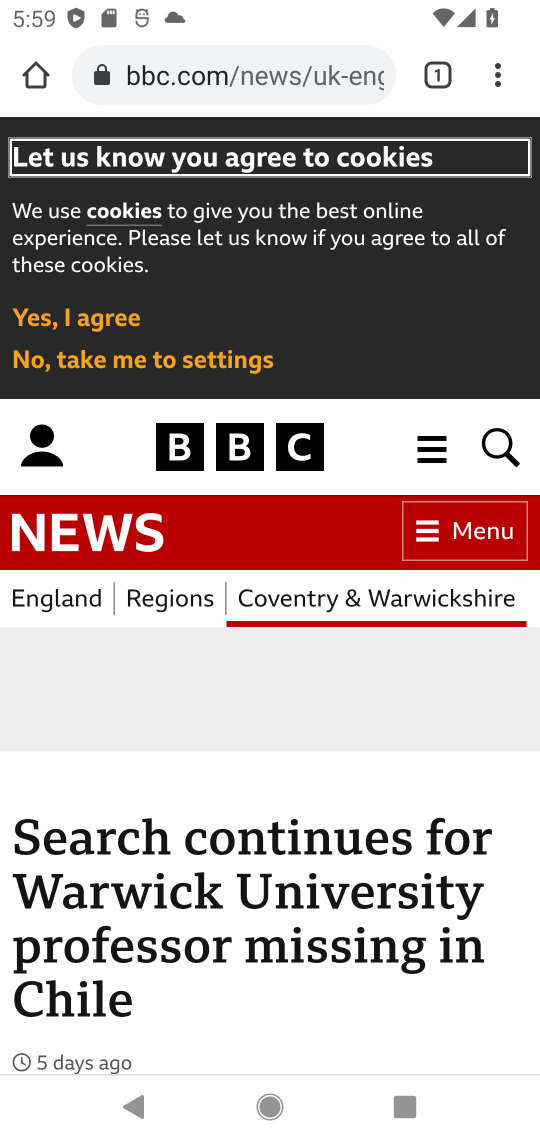
Step 47: task complete